Your task to perform on an android device: Search for "amazon basics triple a" on amazon, select the first entry, and add it to the cart. Image 0: 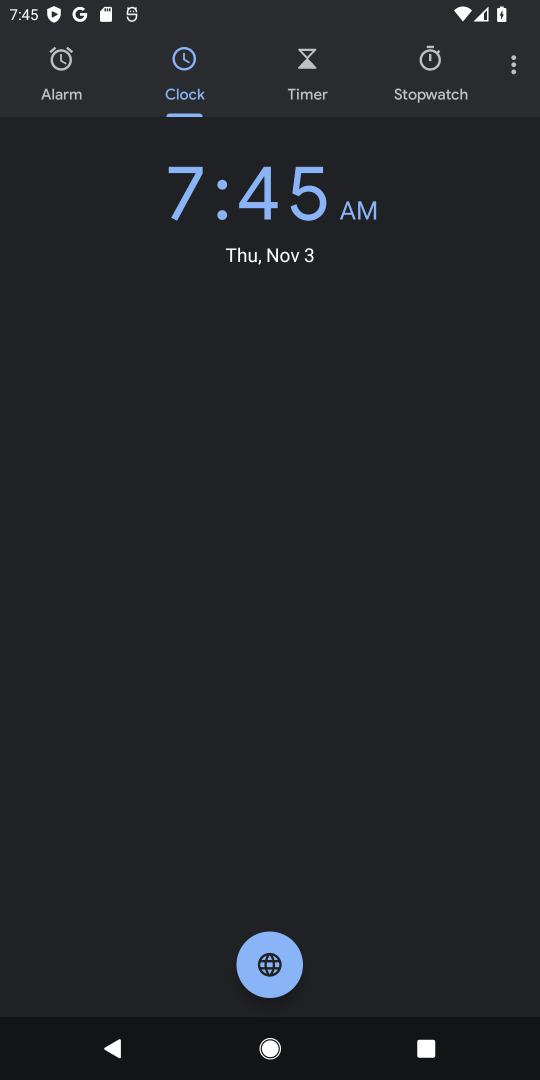
Step 0: press home button
Your task to perform on an android device: Search for "amazon basics triple a" on amazon, select the first entry, and add it to the cart. Image 1: 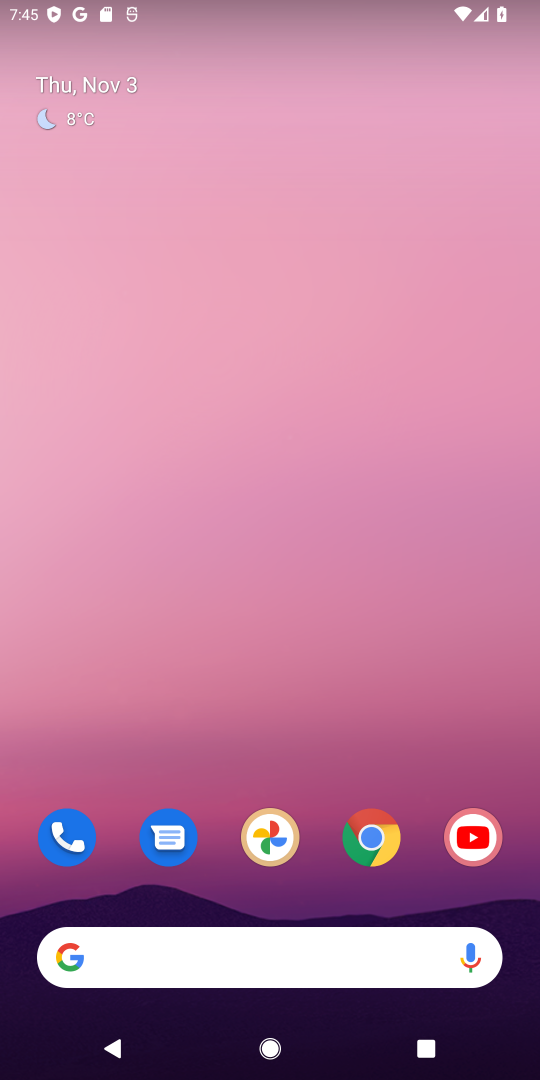
Step 1: click (361, 835)
Your task to perform on an android device: Search for "amazon basics triple a" on amazon, select the first entry, and add it to the cart. Image 2: 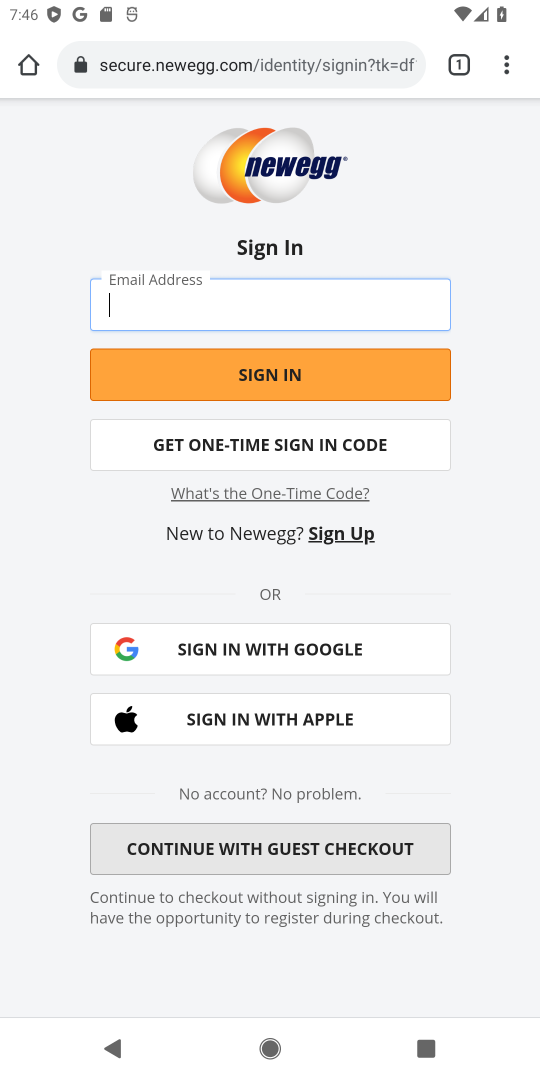
Step 2: click (281, 60)
Your task to perform on an android device: Search for "amazon basics triple a" on amazon, select the first entry, and add it to the cart. Image 3: 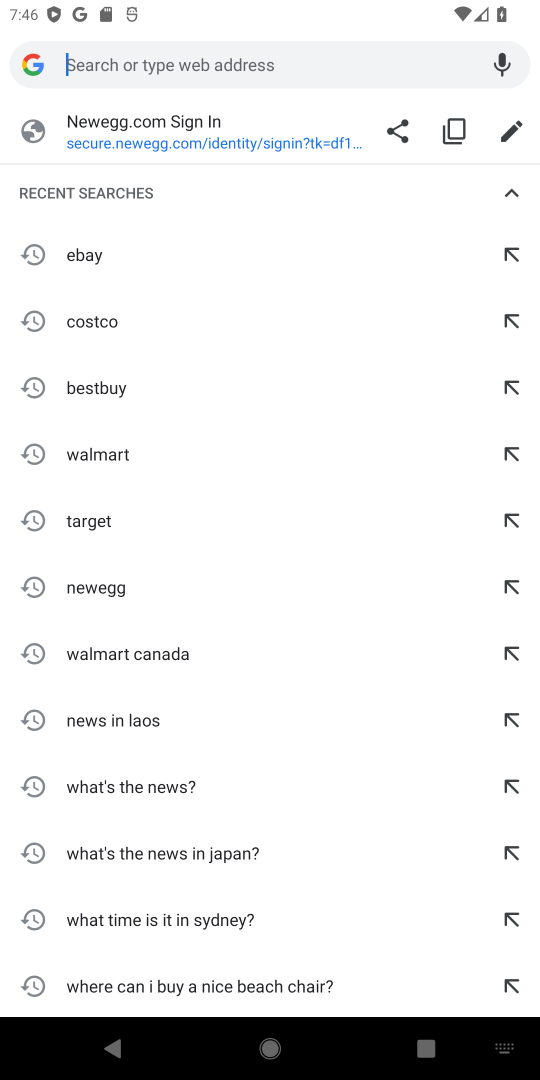
Step 3: type "amazon"
Your task to perform on an android device: Search for "amazon basics triple a" on amazon, select the first entry, and add it to the cart. Image 4: 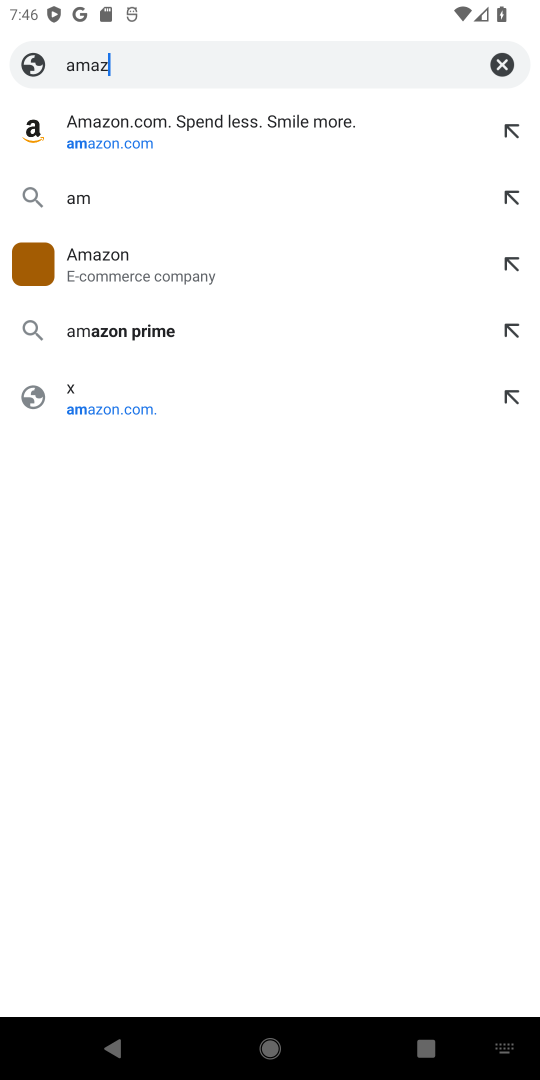
Step 4: press enter
Your task to perform on an android device: Search for "amazon basics triple a" on amazon, select the first entry, and add it to the cart. Image 5: 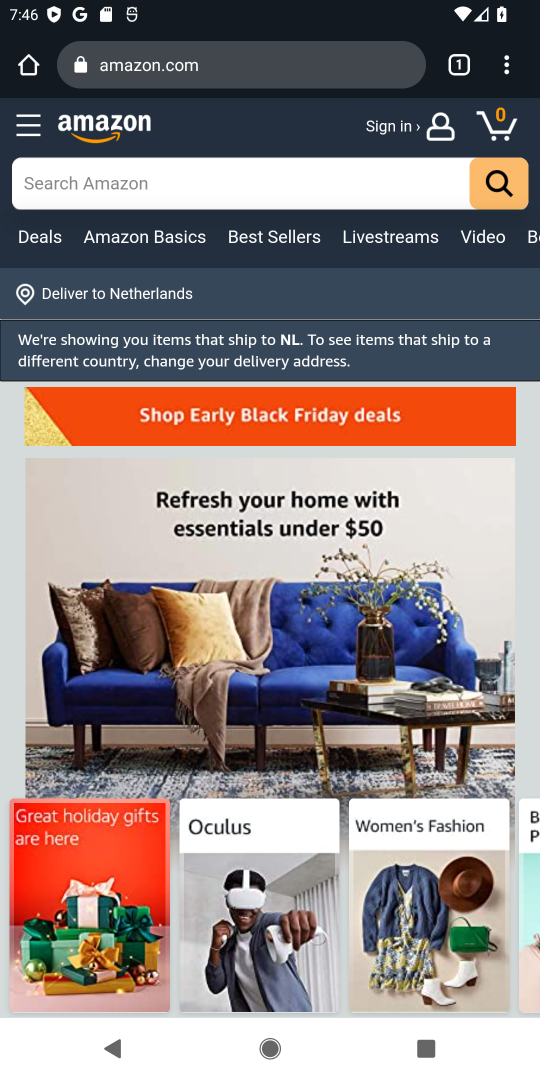
Step 5: click (238, 180)
Your task to perform on an android device: Search for "amazon basics triple a" on amazon, select the first entry, and add it to the cart. Image 6: 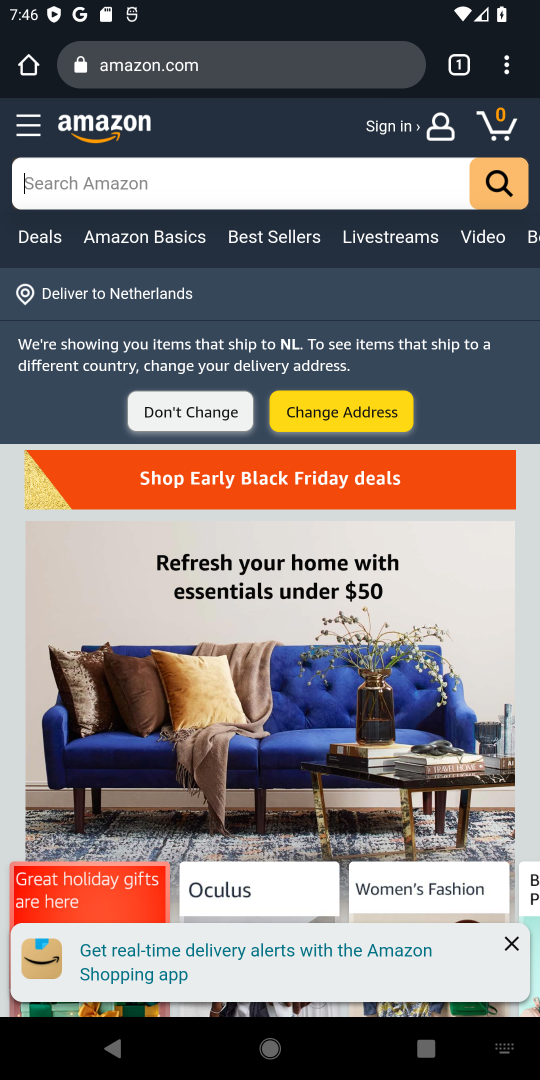
Step 6: type "amazon basics triple a"
Your task to perform on an android device: Search for "amazon basics triple a" on amazon, select the first entry, and add it to the cart. Image 7: 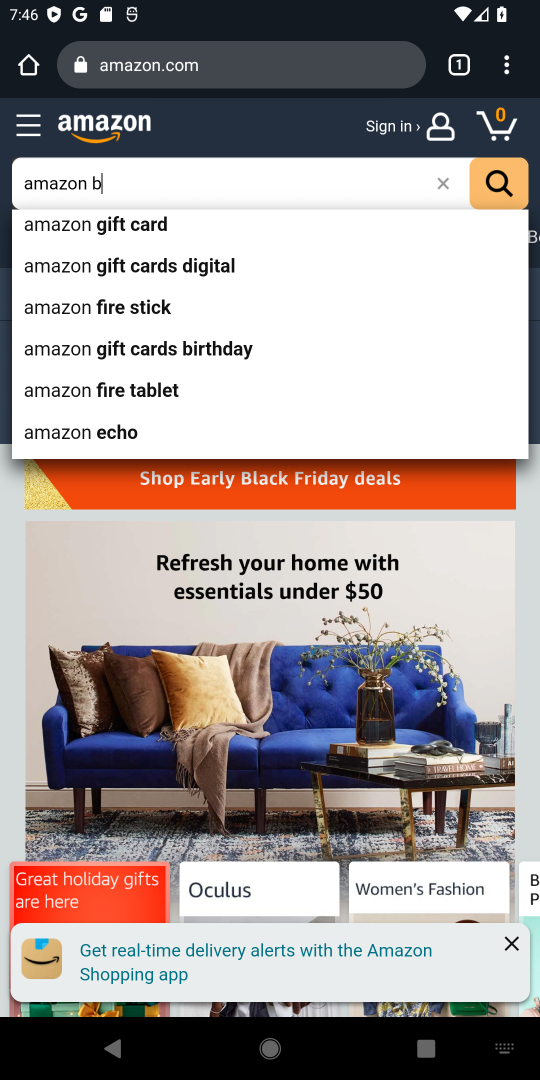
Step 7: press enter
Your task to perform on an android device: Search for "amazon basics triple a" on amazon, select the first entry, and add it to the cart. Image 8: 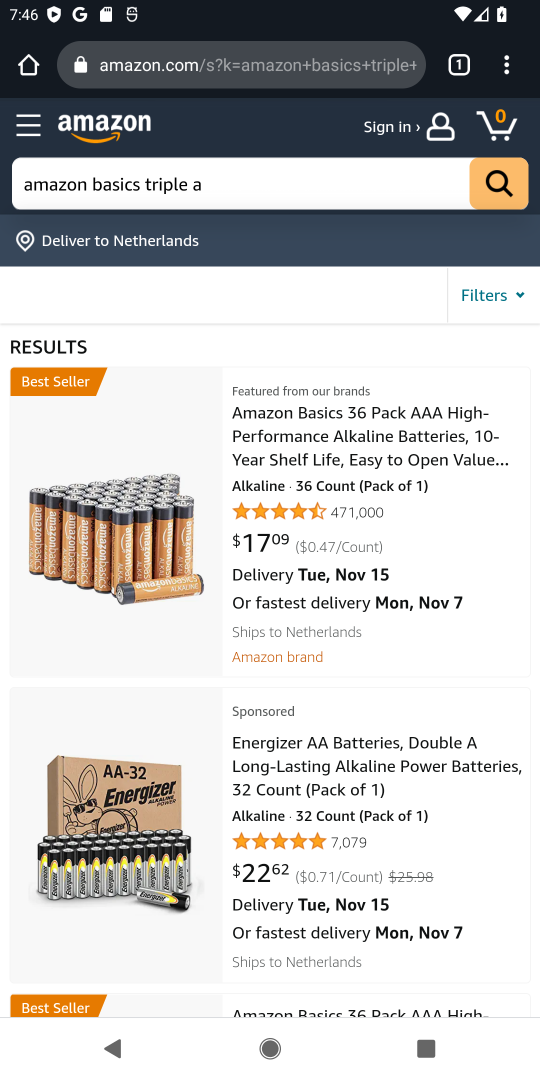
Step 8: click (366, 486)
Your task to perform on an android device: Search for "amazon basics triple a" on amazon, select the first entry, and add it to the cart. Image 9: 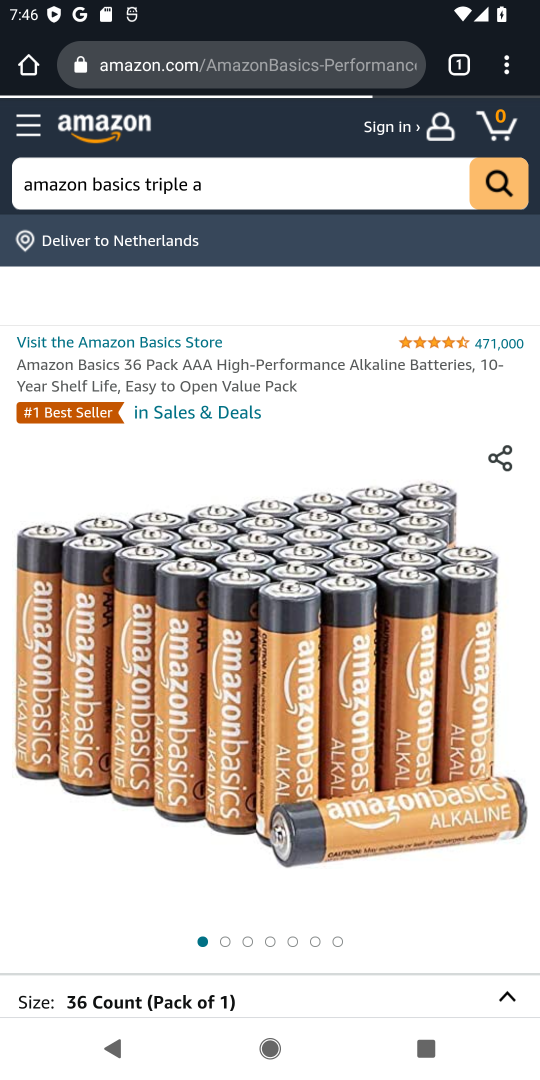
Step 9: drag from (135, 866) to (496, 150)
Your task to perform on an android device: Search for "amazon basics triple a" on amazon, select the first entry, and add it to the cart. Image 10: 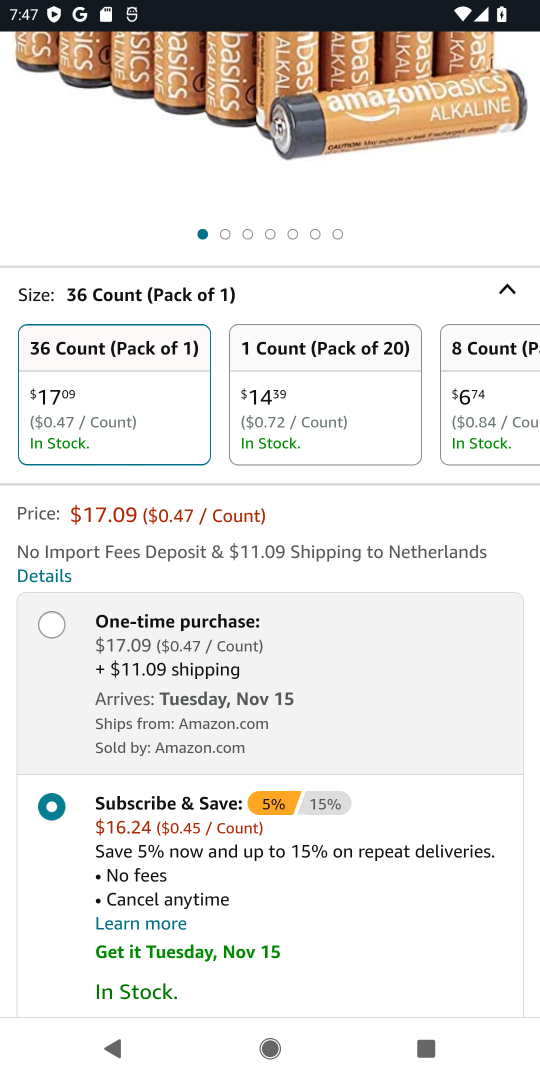
Step 10: drag from (327, 948) to (437, 439)
Your task to perform on an android device: Search for "amazon basics triple a" on amazon, select the first entry, and add it to the cart. Image 11: 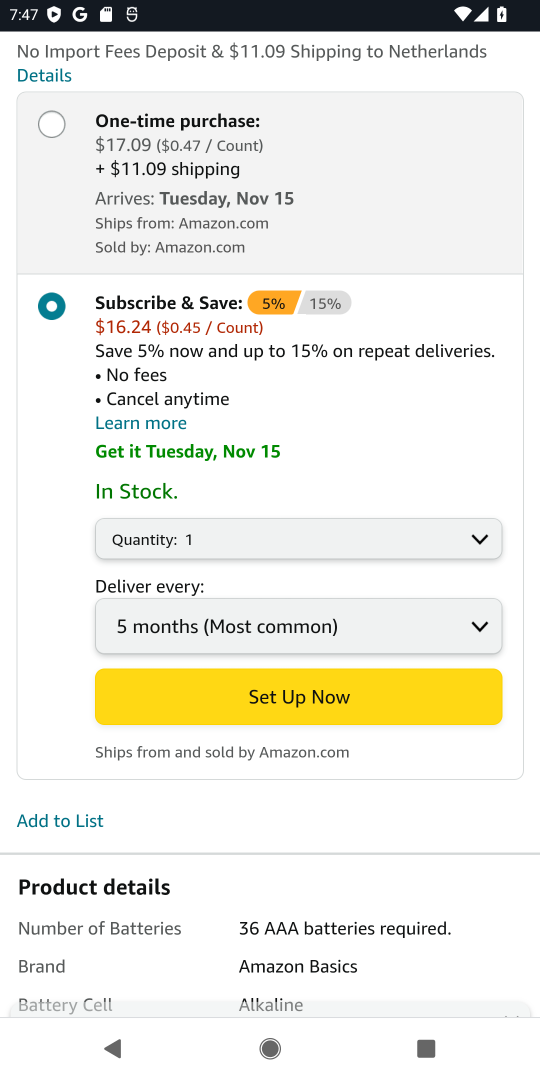
Step 11: drag from (378, 920) to (450, 376)
Your task to perform on an android device: Search for "amazon basics triple a" on amazon, select the first entry, and add it to the cart. Image 12: 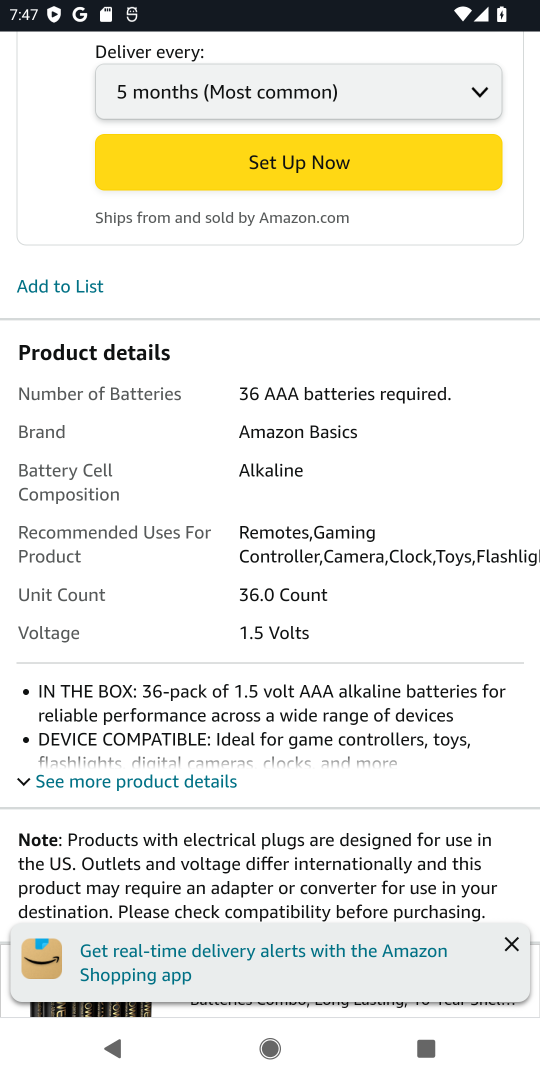
Step 12: drag from (266, 843) to (440, 0)
Your task to perform on an android device: Search for "amazon basics triple a" on amazon, select the first entry, and add it to the cart. Image 13: 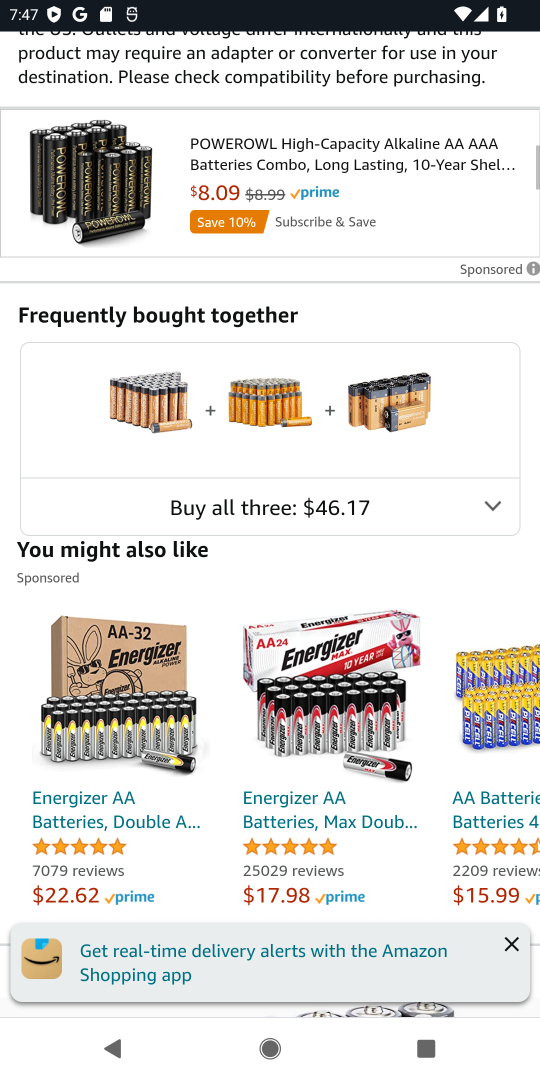
Step 13: drag from (378, 756) to (248, 839)
Your task to perform on an android device: Search for "amazon basics triple a" on amazon, select the first entry, and add it to the cart. Image 14: 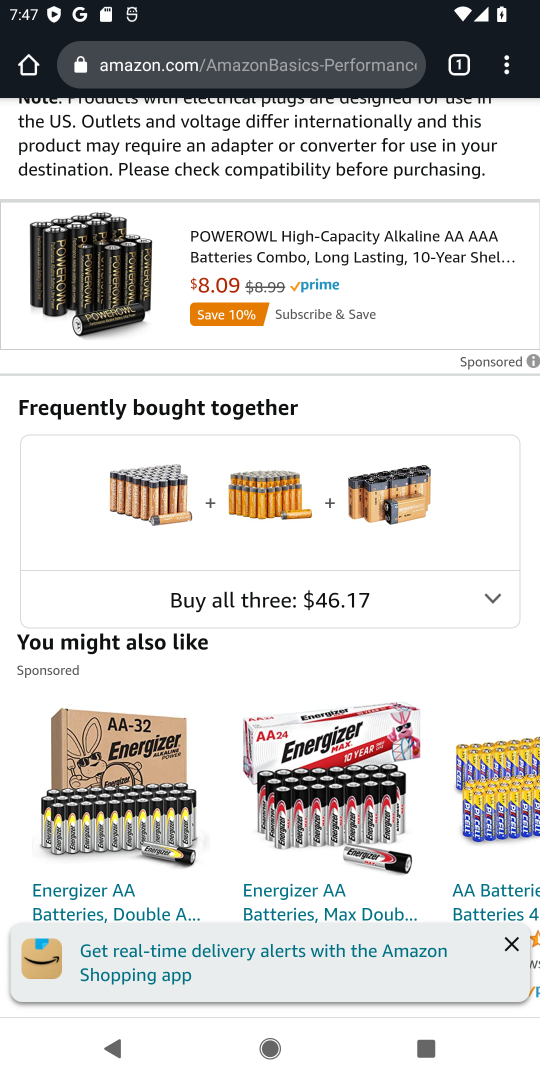
Step 14: drag from (404, 251) to (271, 923)
Your task to perform on an android device: Search for "amazon basics triple a" on amazon, select the first entry, and add it to the cart. Image 15: 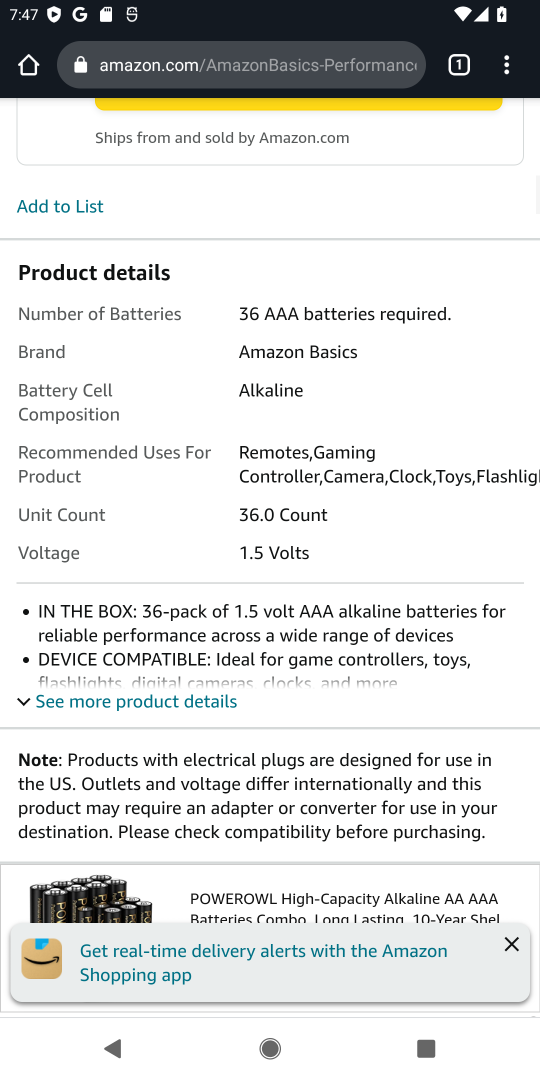
Step 15: drag from (420, 209) to (380, 897)
Your task to perform on an android device: Search for "amazon basics triple a" on amazon, select the first entry, and add it to the cart. Image 16: 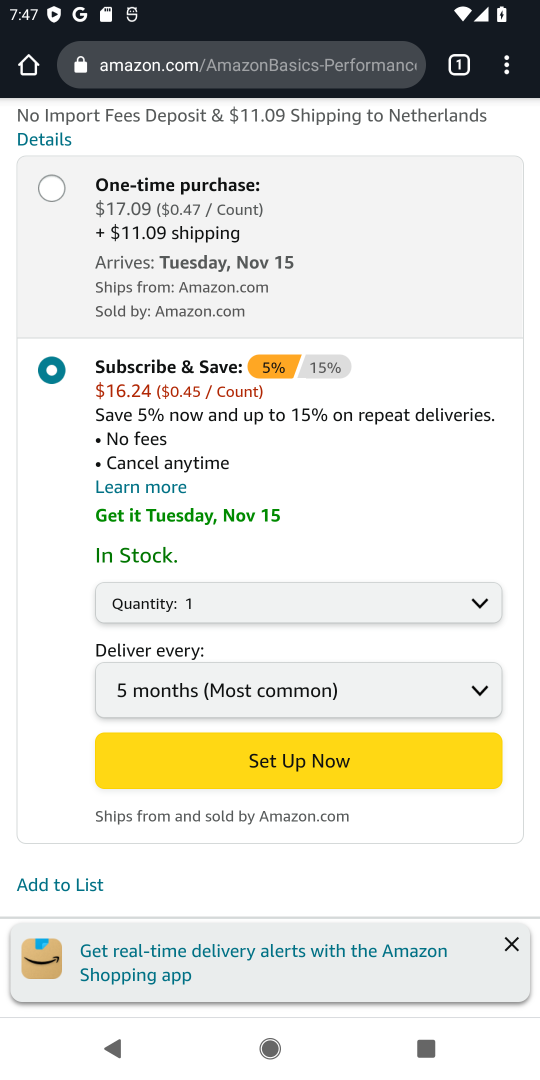
Step 16: drag from (443, 207) to (329, 911)
Your task to perform on an android device: Search for "amazon basics triple a" on amazon, select the first entry, and add it to the cart. Image 17: 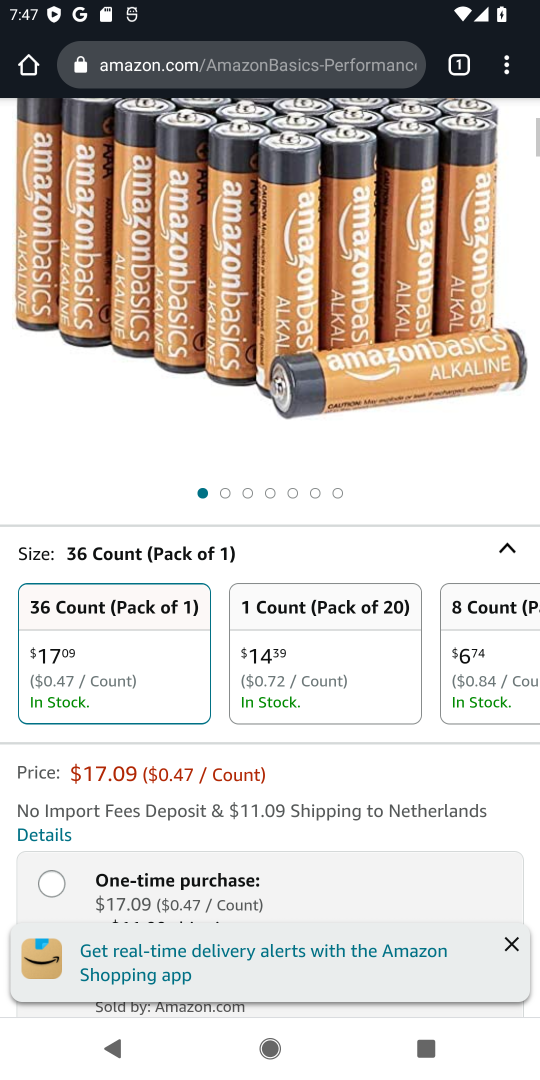
Step 17: drag from (366, 345) to (308, 927)
Your task to perform on an android device: Search for "amazon basics triple a" on amazon, select the first entry, and add it to the cart. Image 18: 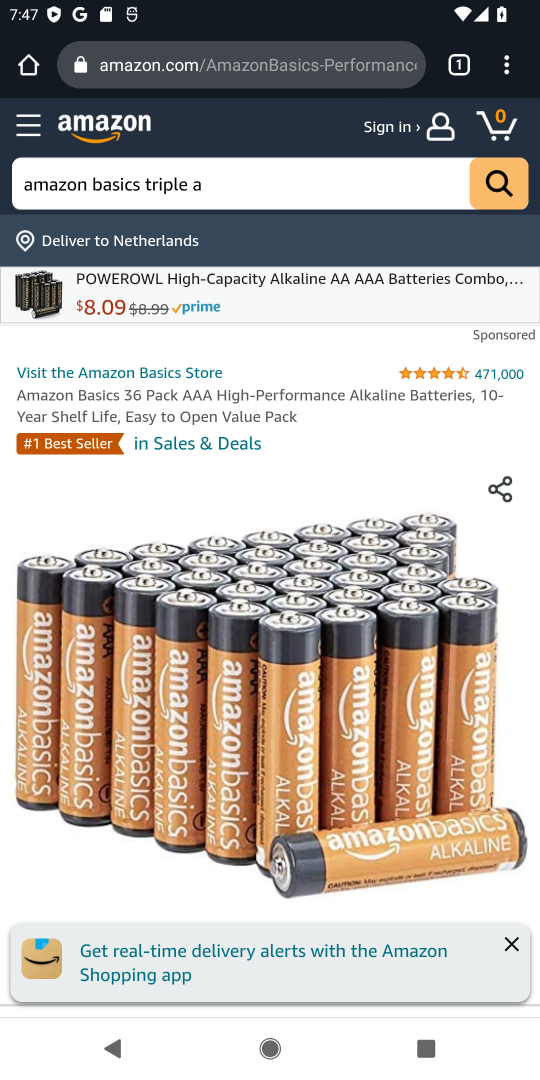
Step 18: drag from (207, 785) to (443, 205)
Your task to perform on an android device: Search for "amazon basics triple a" on amazon, select the first entry, and add it to the cart. Image 19: 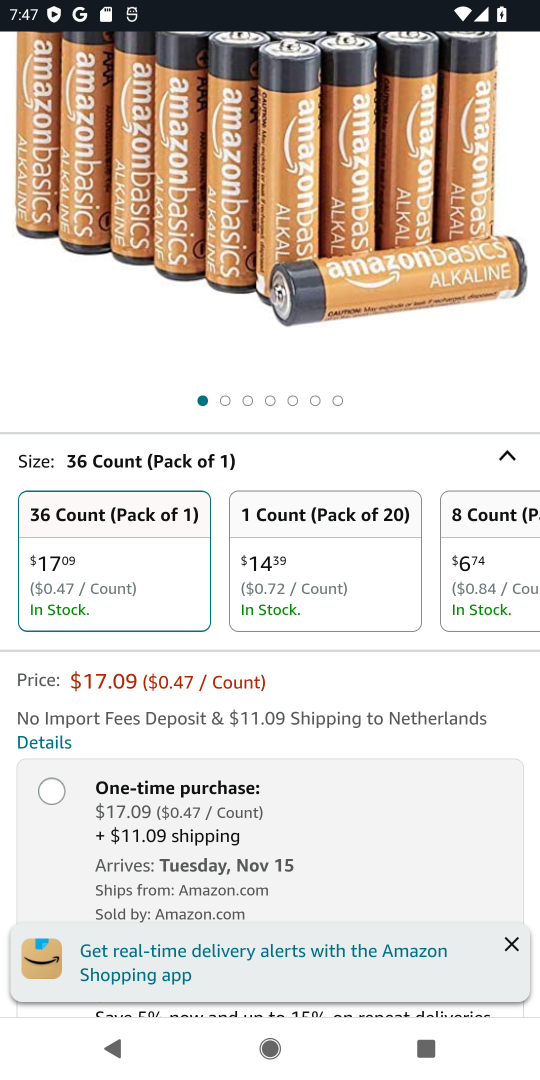
Step 19: drag from (335, 851) to (512, 228)
Your task to perform on an android device: Search for "amazon basics triple a" on amazon, select the first entry, and add it to the cart. Image 20: 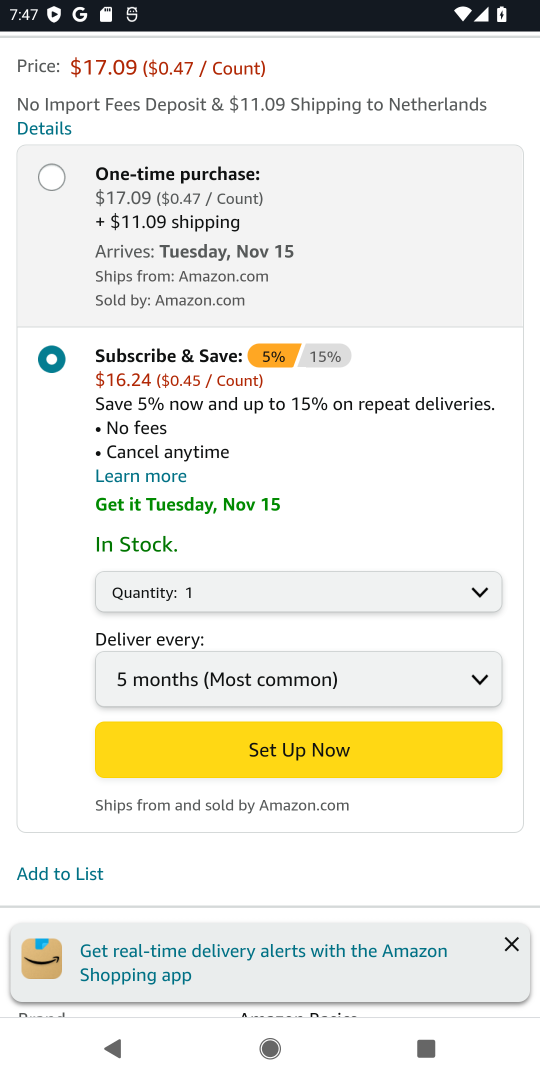
Step 20: click (510, 942)
Your task to perform on an android device: Search for "amazon basics triple a" on amazon, select the first entry, and add it to the cart. Image 21: 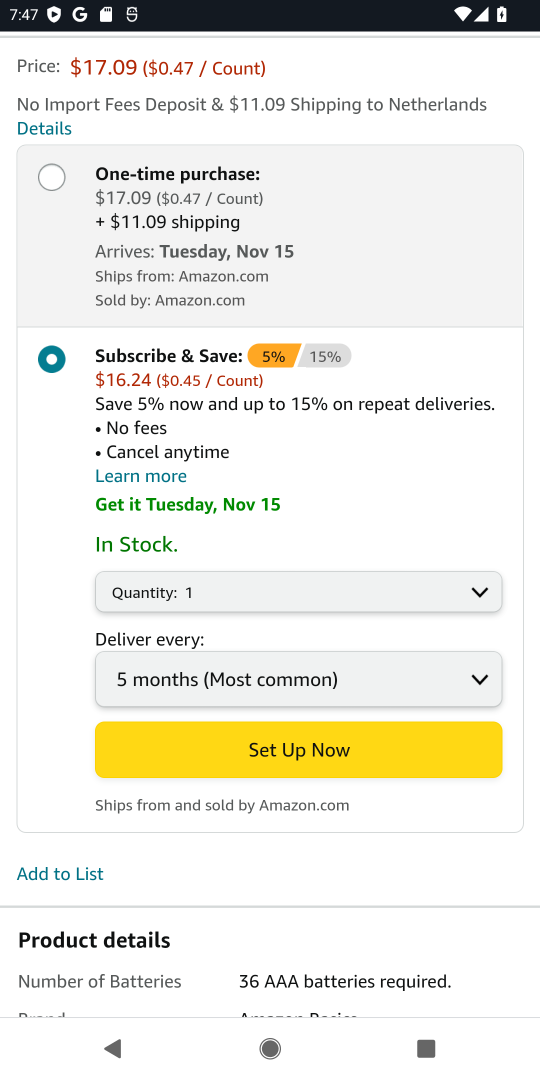
Step 21: task complete